Your task to perform on an android device: create a new album in the google photos Image 0: 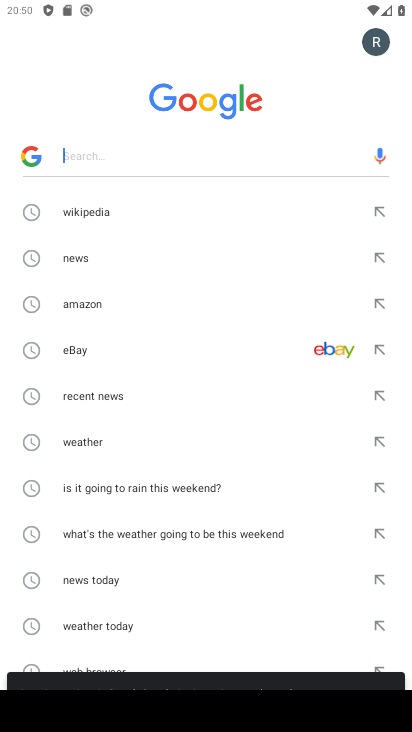
Step 0: press home button
Your task to perform on an android device: create a new album in the google photos Image 1: 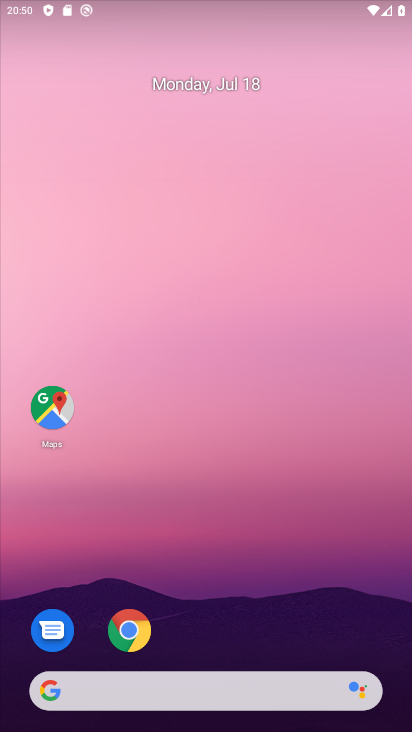
Step 1: drag from (209, 619) to (206, 95)
Your task to perform on an android device: create a new album in the google photos Image 2: 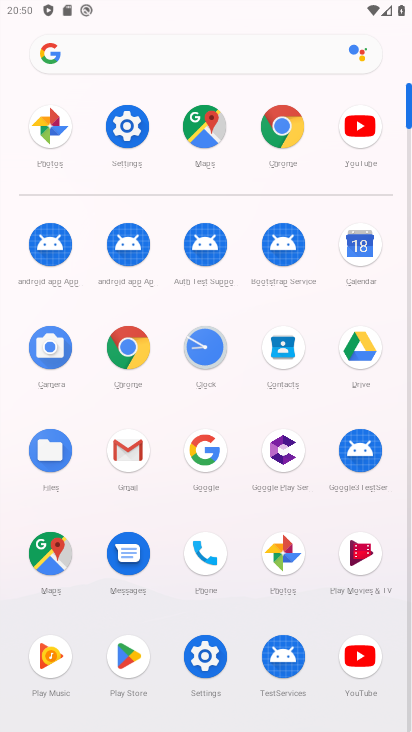
Step 2: click (279, 551)
Your task to perform on an android device: create a new album in the google photos Image 3: 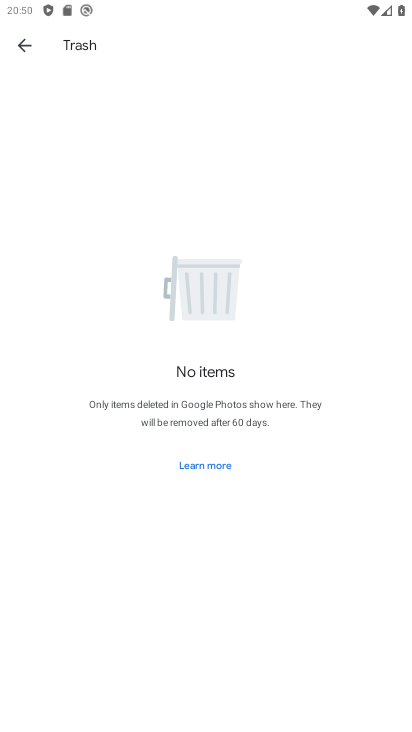
Step 3: click (215, 446)
Your task to perform on an android device: create a new album in the google photos Image 4: 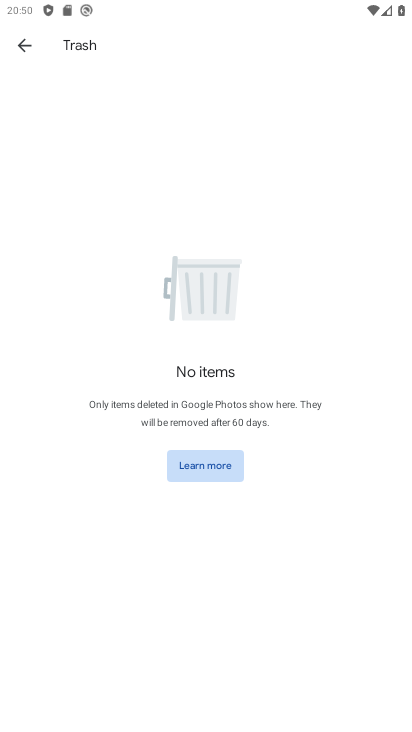
Step 4: click (215, 456)
Your task to perform on an android device: create a new album in the google photos Image 5: 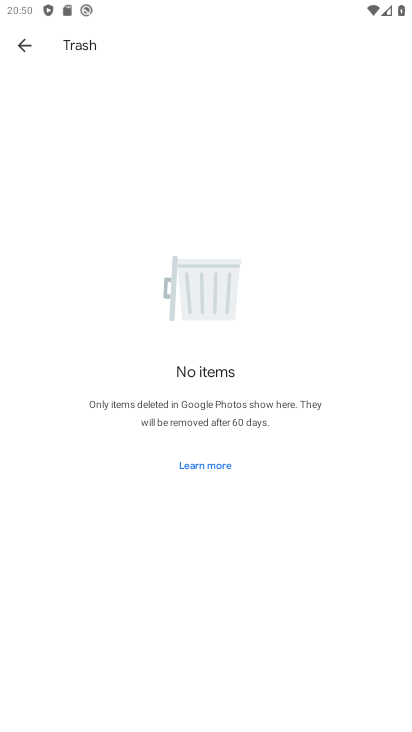
Step 5: click (215, 464)
Your task to perform on an android device: create a new album in the google photos Image 6: 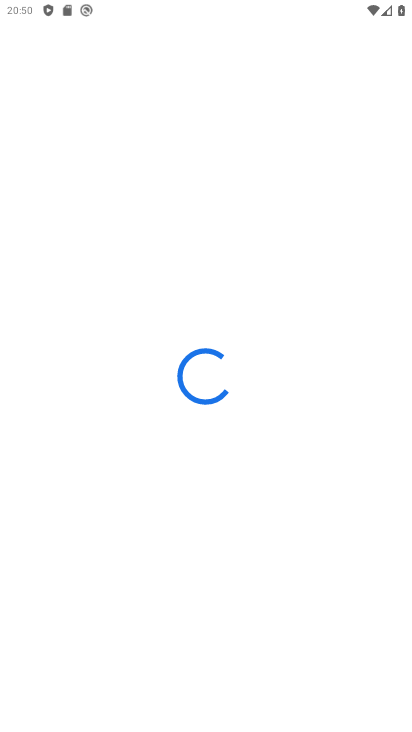
Step 6: click (25, 37)
Your task to perform on an android device: create a new album in the google photos Image 7: 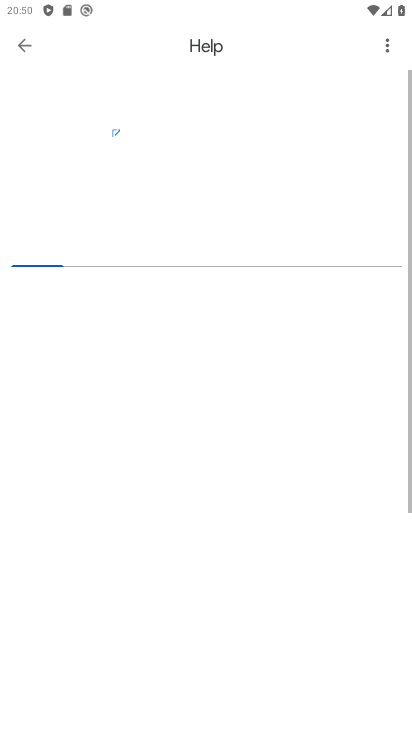
Step 7: click (27, 48)
Your task to perform on an android device: create a new album in the google photos Image 8: 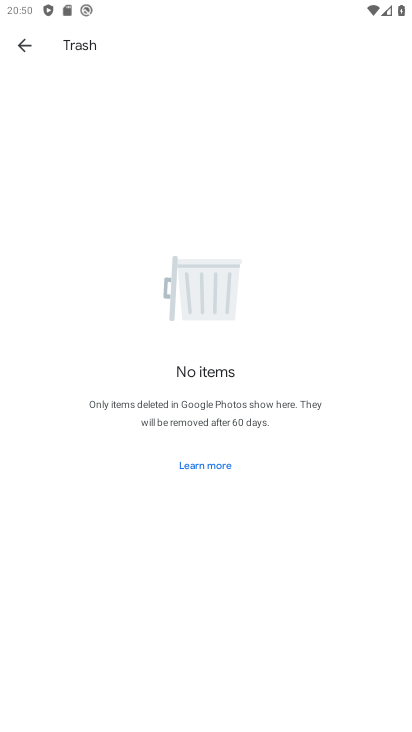
Step 8: click (27, 48)
Your task to perform on an android device: create a new album in the google photos Image 9: 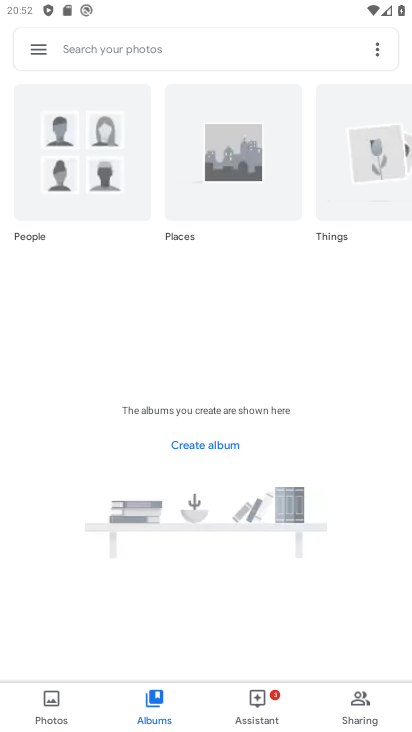
Step 9: task complete